Your task to perform on an android device: allow notifications from all sites in the chrome app Image 0: 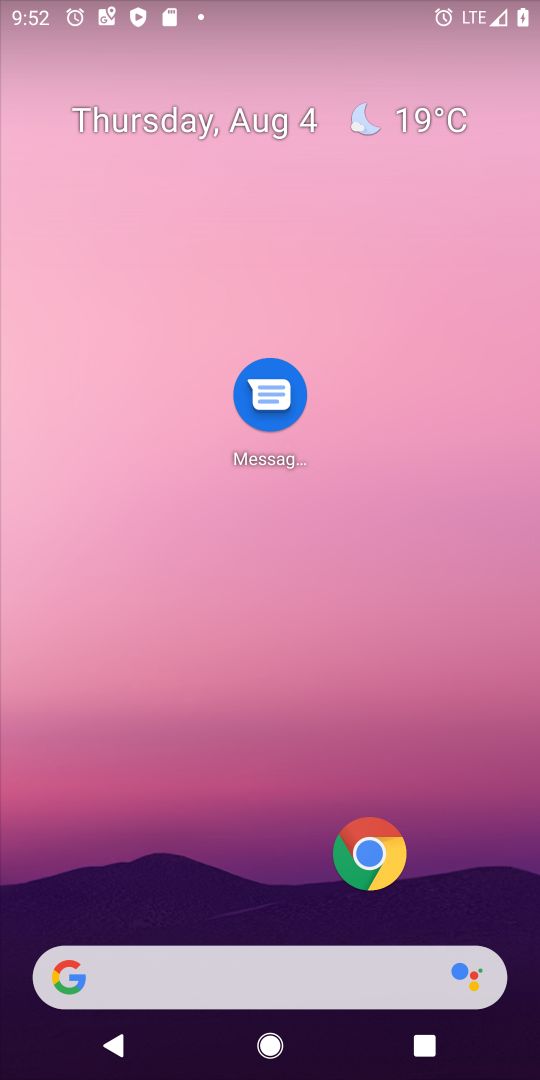
Step 0: click (371, 855)
Your task to perform on an android device: allow notifications from all sites in the chrome app Image 1: 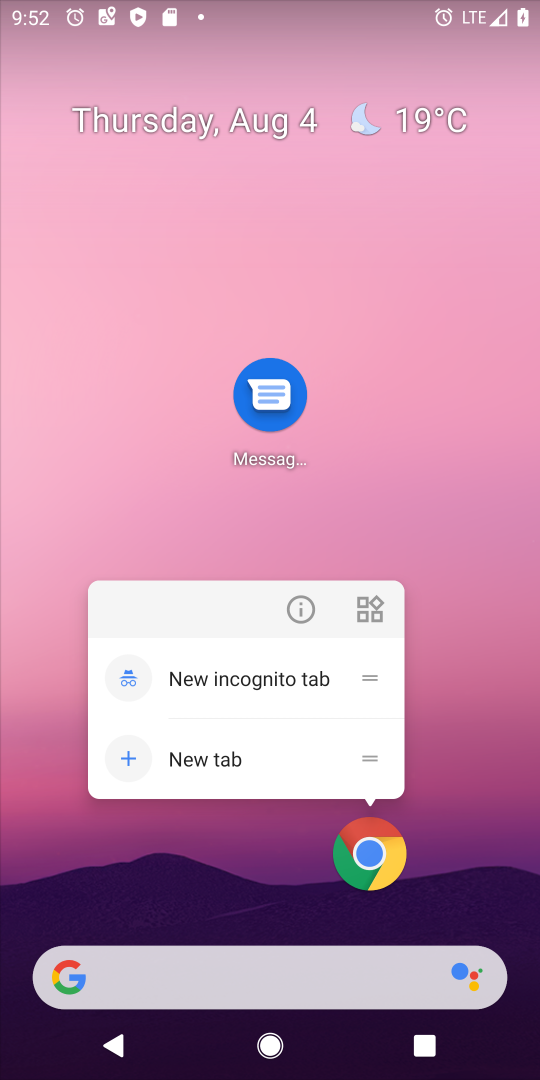
Step 1: click (371, 855)
Your task to perform on an android device: allow notifications from all sites in the chrome app Image 2: 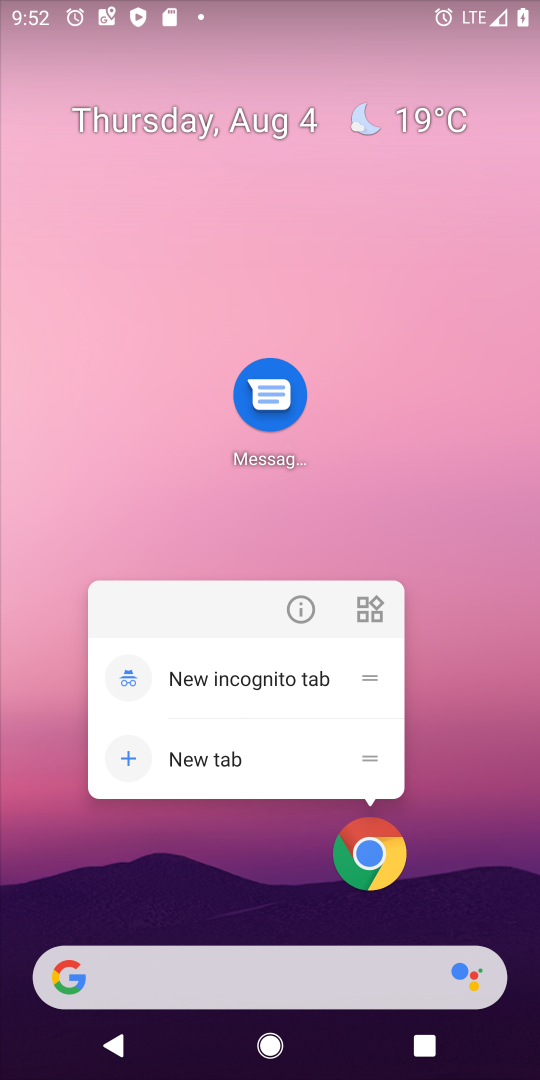
Step 2: click (371, 855)
Your task to perform on an android device: allow notifications from all sites in the chrome app Image 3: 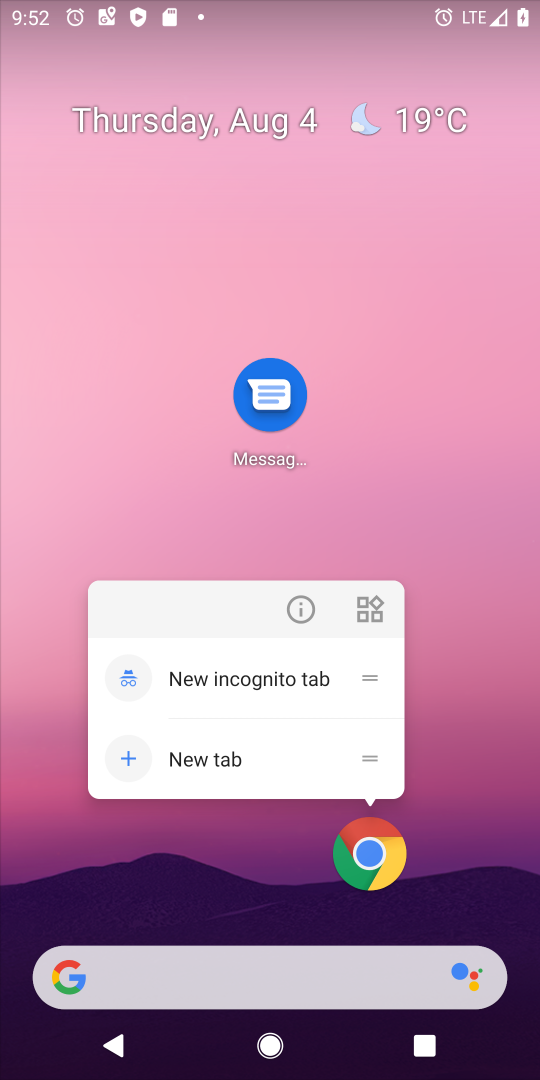
Step 3: click (375, 858)
Your task to perform on an android device: allow notifications from all sites in the chrome app Image 4: 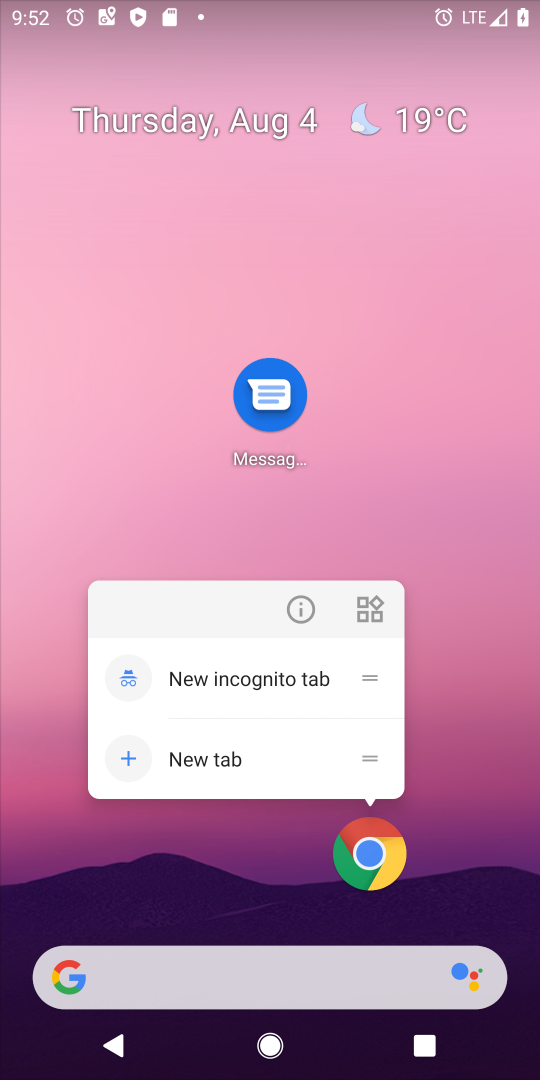
Step 4: click (371, 841)
Your task to perform on an android device: allow notifications from all sites in the chrome app Image 5: 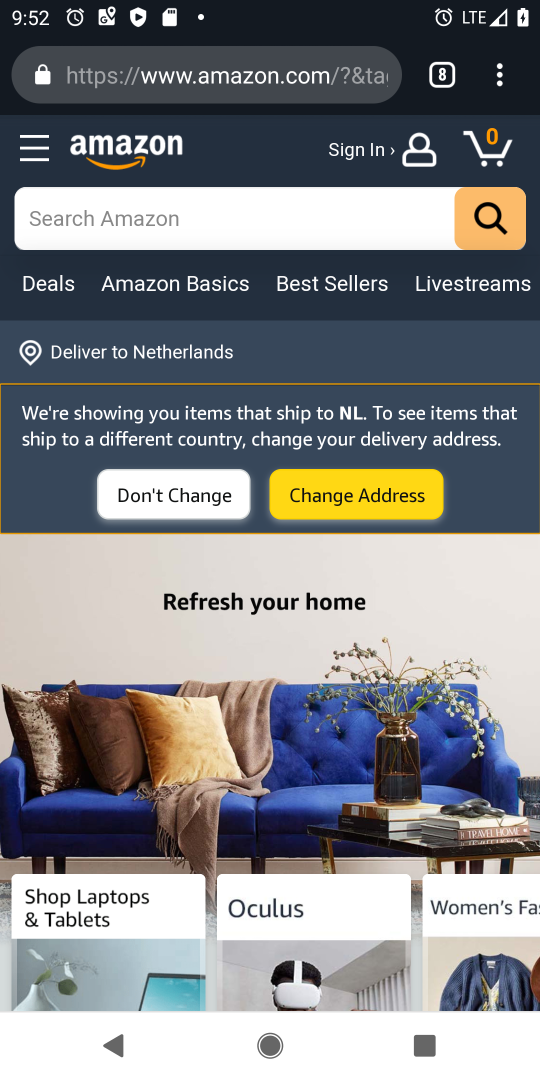
Step 5: click (506, 80)
Your task to perform on an android device: allow notifications from all sites in the chrome app Image 6: 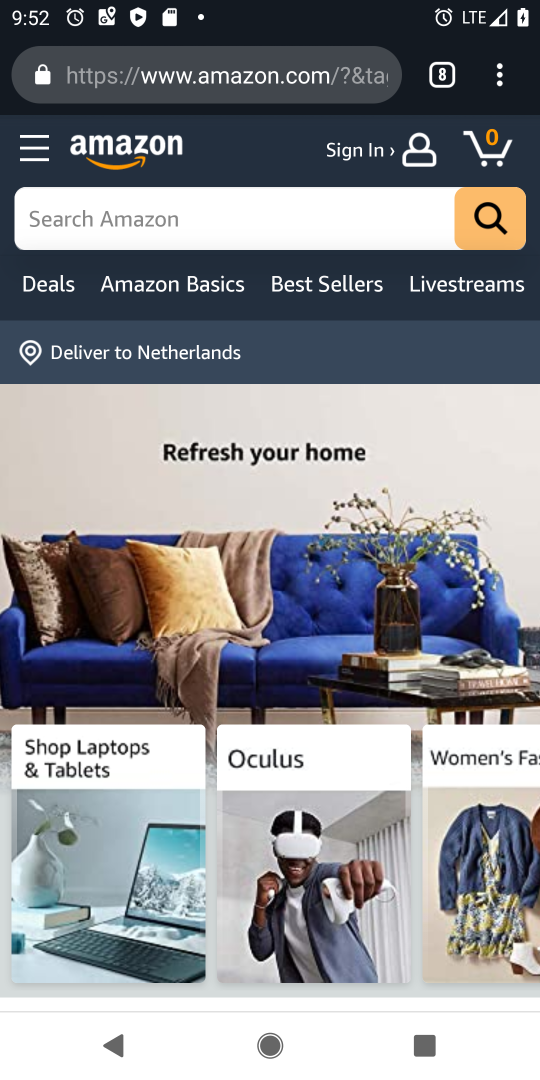
Step 6: click (506, 80)
Your task to perform on an android device: allow notifications from all sites in the chrome app Image 7: 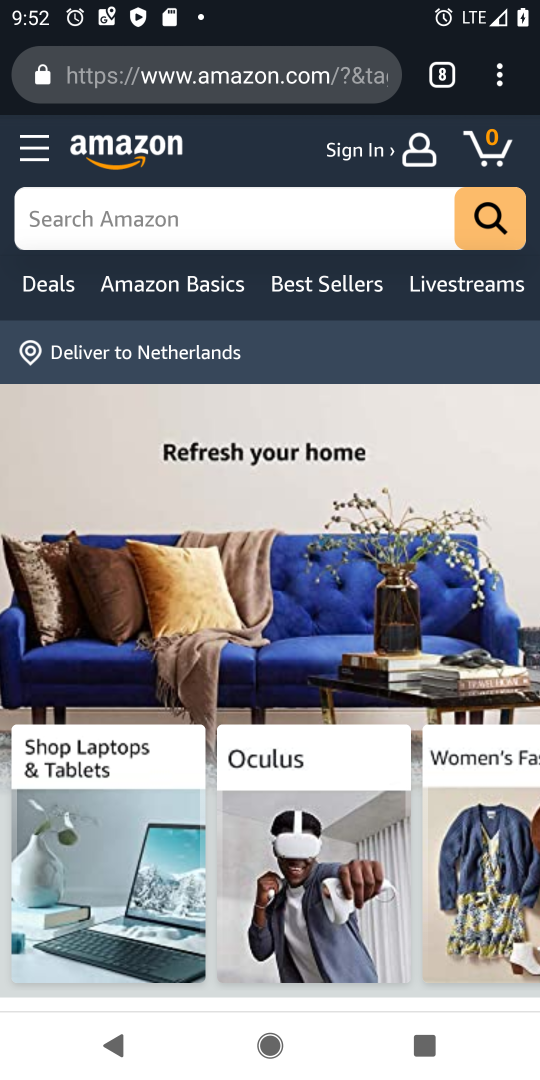
Step 7: click (496, 82)
Your task to perform on an android device: allow notifications from all sites in the chrome app Image 8: 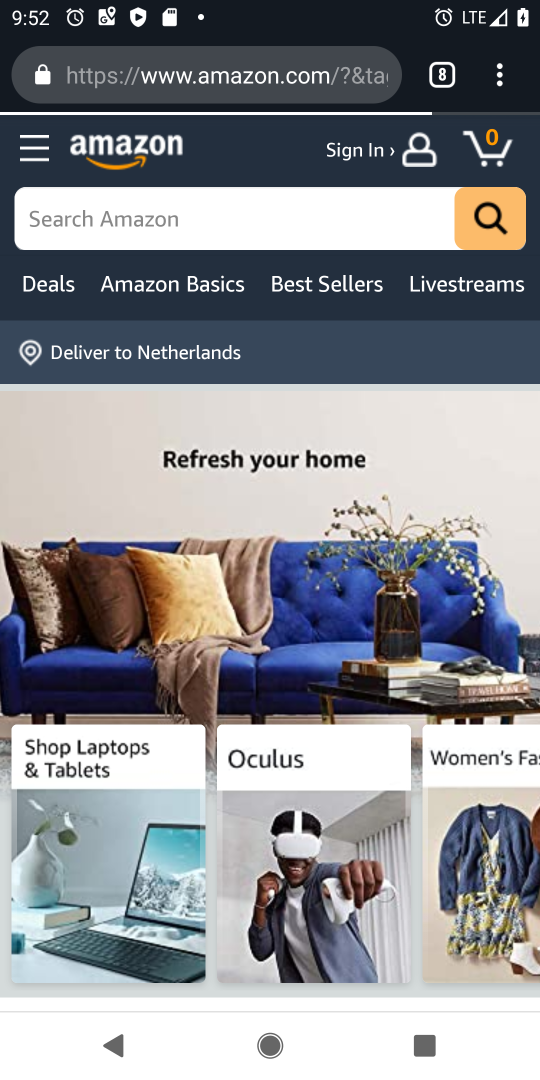
Step 8: click (497, 72)
Your task to perform on an android device: allow notifications from all sites in the chrome app Image 9: 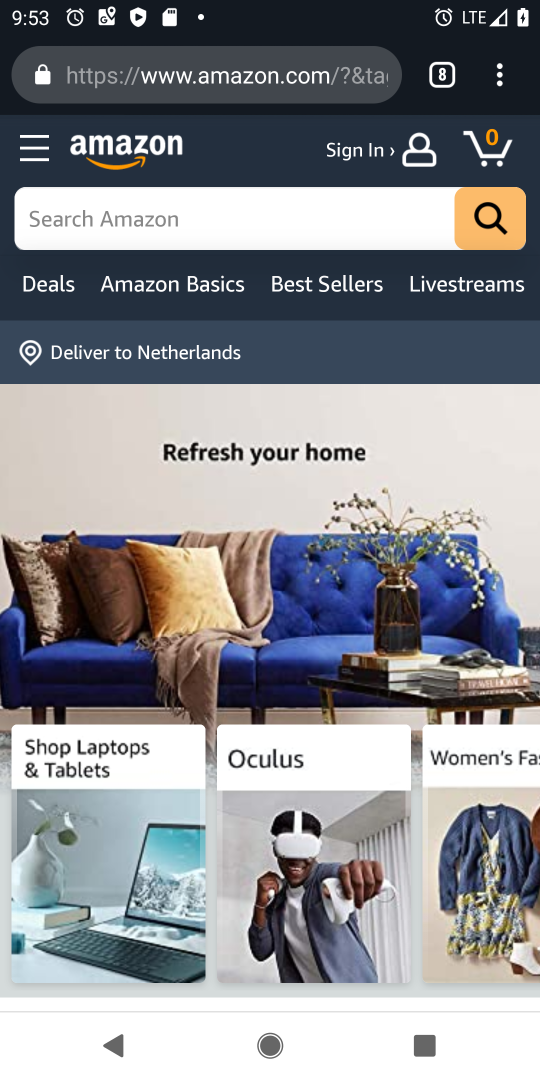
Step 9: click (505, 84)
Your task to perform on an android device: allow notifications from all sites in the chrome app Image 10: 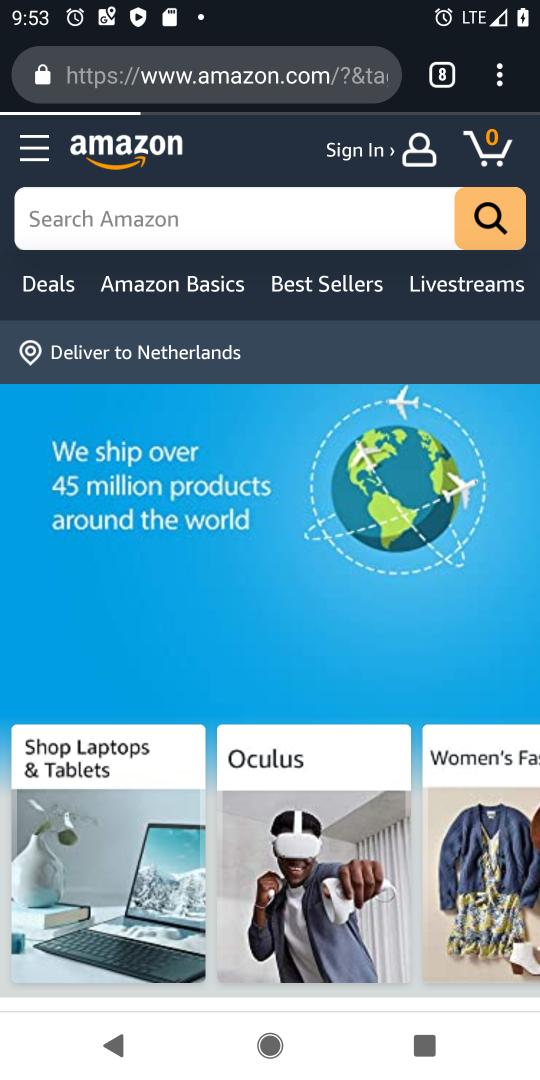
Step 10: click (499, 78)
Your task to perform on an android device: allow notifications from all sites in the chrome app Image 11: 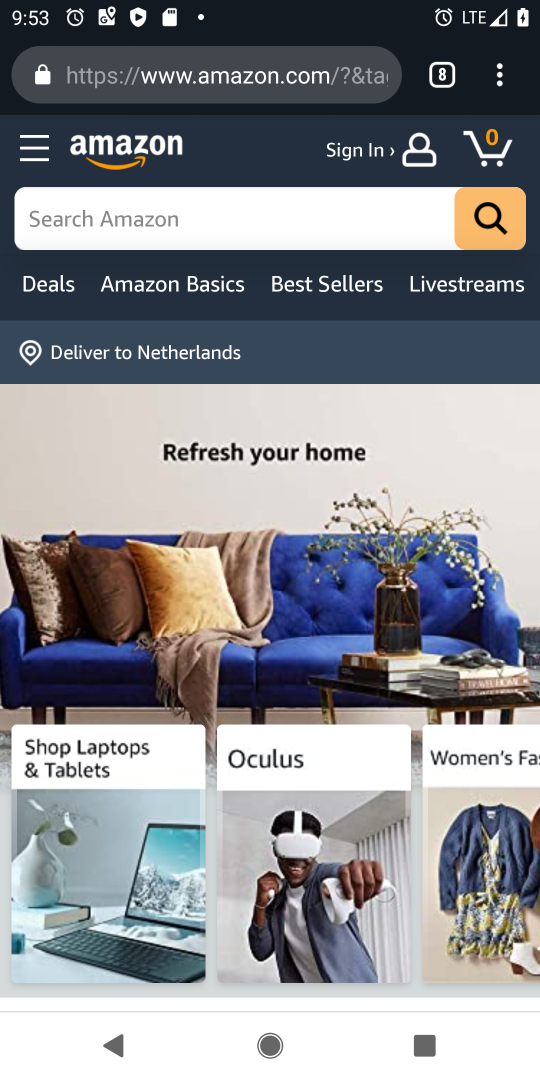
Step 11: click (501, 78)
Your task to perform on an android device: allow notifications from all sites in the chrome app Image 12: 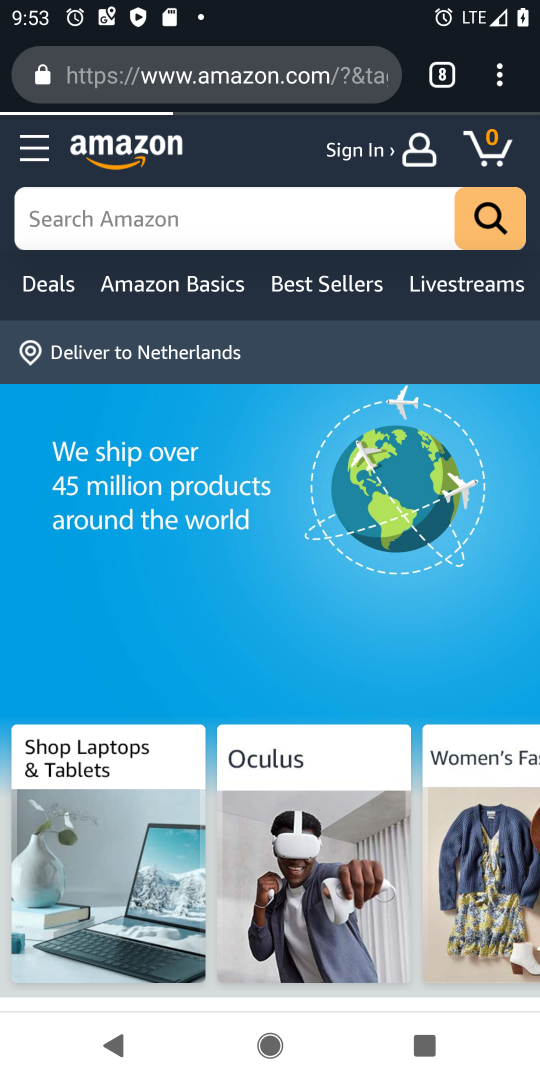
Step 12: click (501, 78)
Your task to perform on an android device: allow notifications from all sites in the chrome app Image 13: 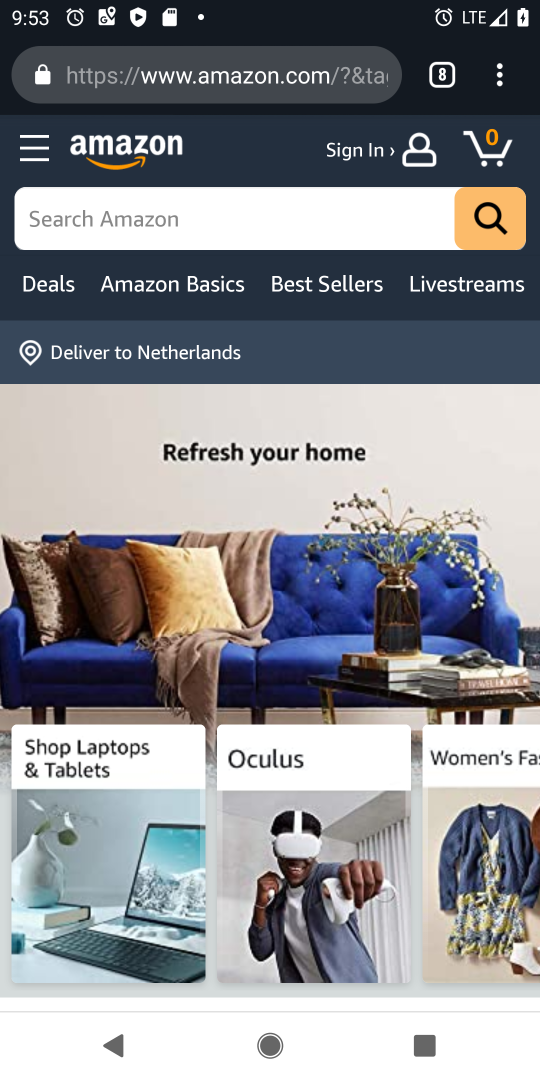
Step 13: click (501, 78)
Your task to perform on an android device: allow notifications from all sites in the chrome app Image 14: 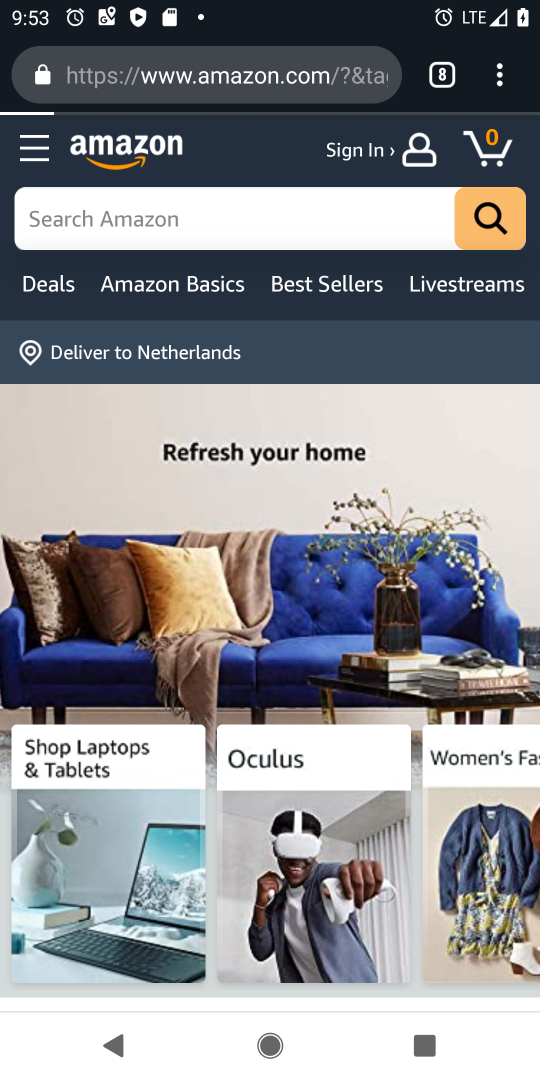
Step 14: click (501, 78)
Your task to perform on an android device: allow notifications from all sites in the chrome app Image 15: 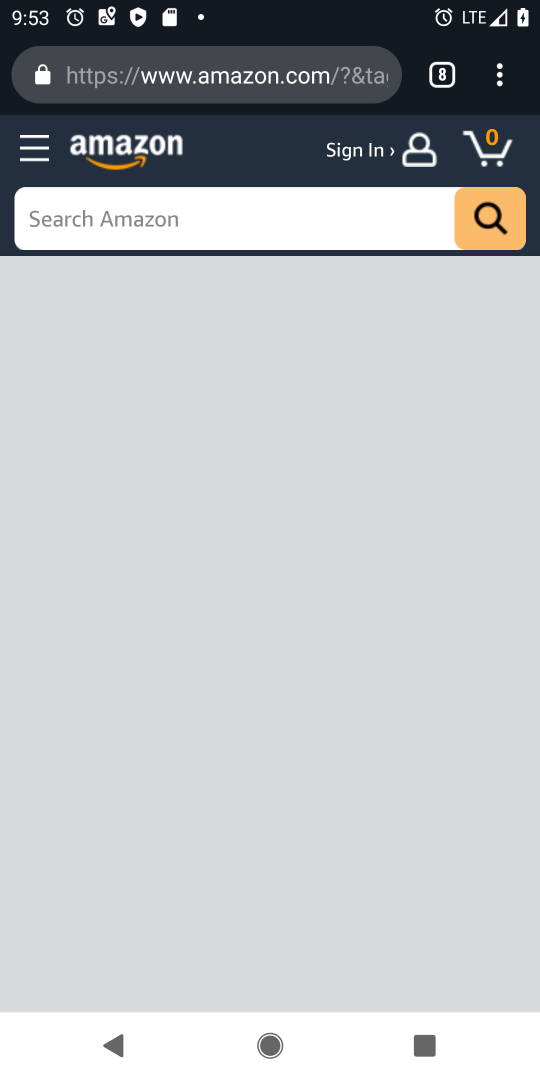
Step 15: click (497, 85)
Your task to perform on an android device: allow notifications from all sites in the chrome app Image 16: 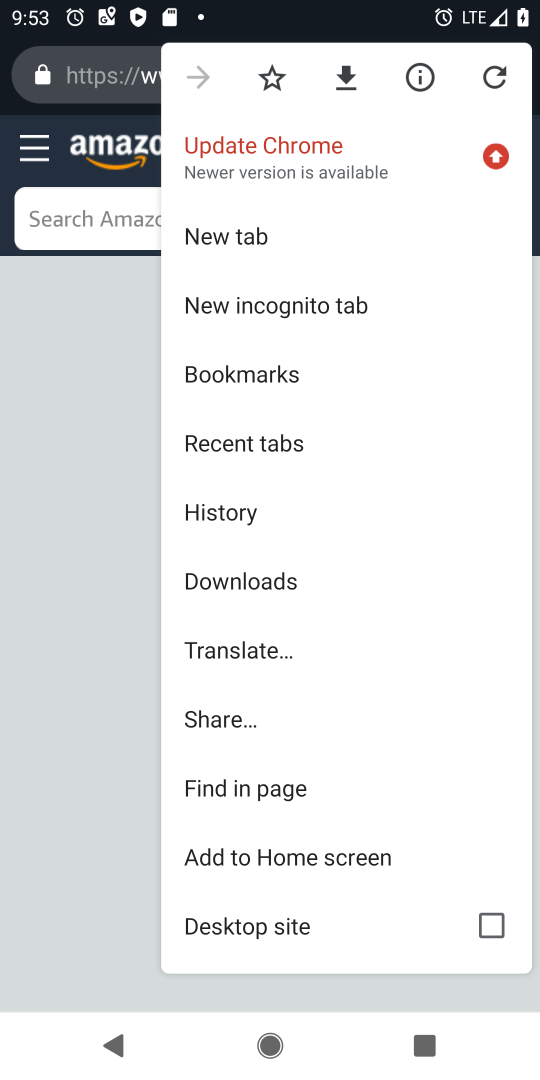
Step 16: drag from (253, 896) to (235, 314)
Your task to perform on an android device: allow notifications from all sites in the chrome app Image 17: 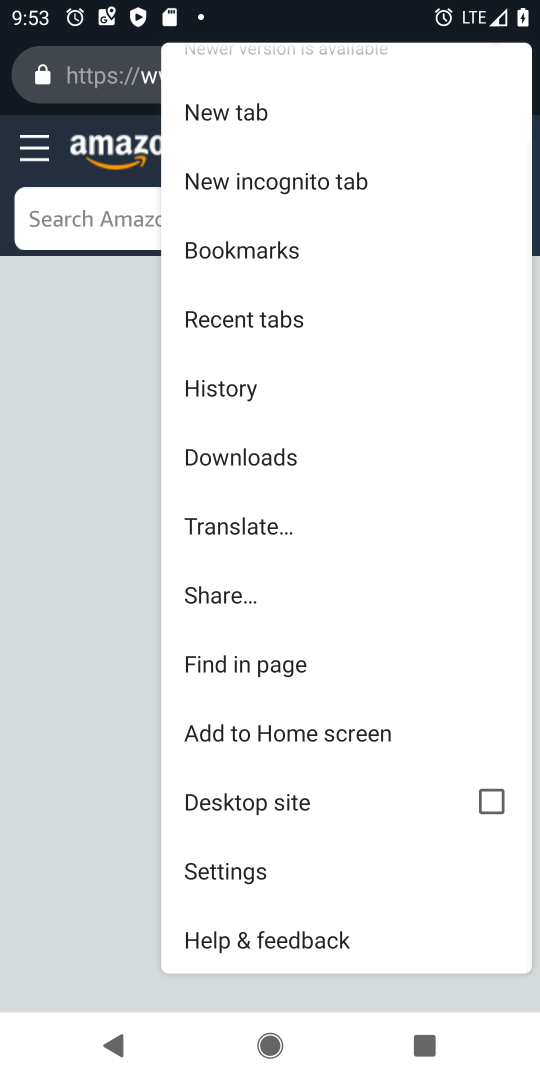
Step 17: click (230, 871)
Your task to perform on an android device: allow notifications from all sites in the chrome app Image 18: 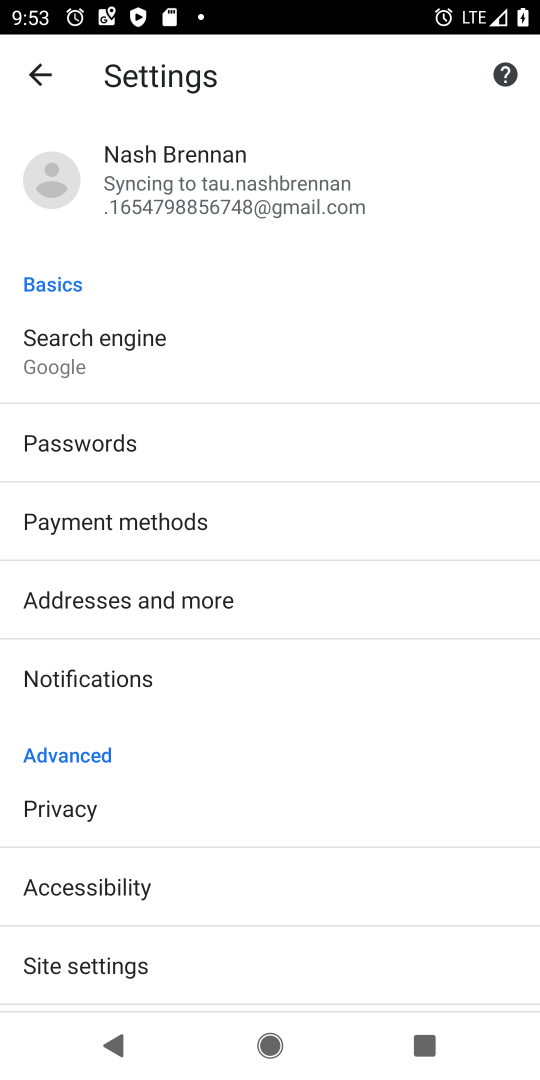
Step 18: drag from (149, 972) to (133, 532)
Your task to perform on an android device: allow notifications from all sites in the chrome app Image 19: 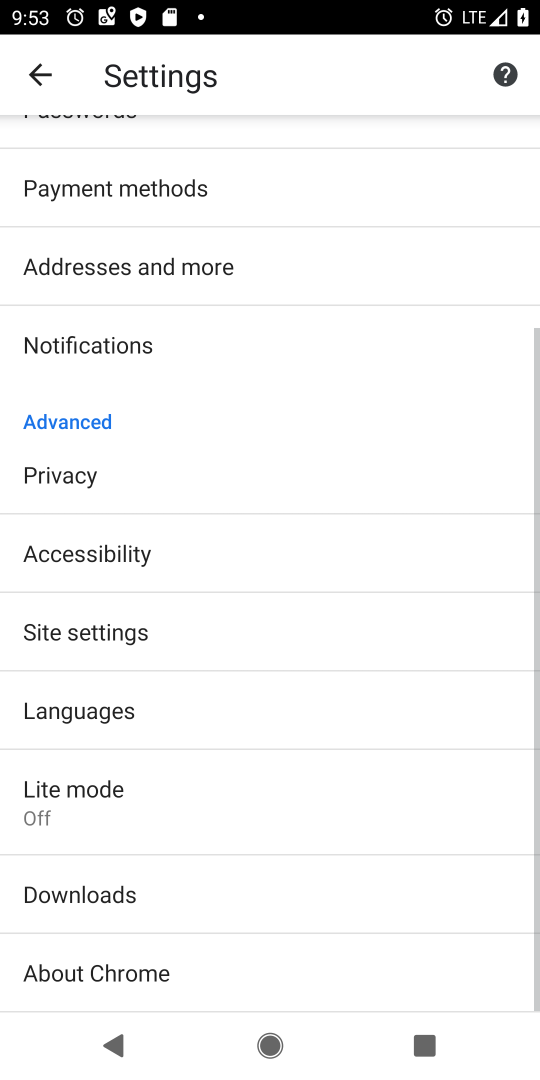
Step 19: click (77, 636)
Your task to perform on an android device: allow notifications from all sites in the chrome app Image 20: 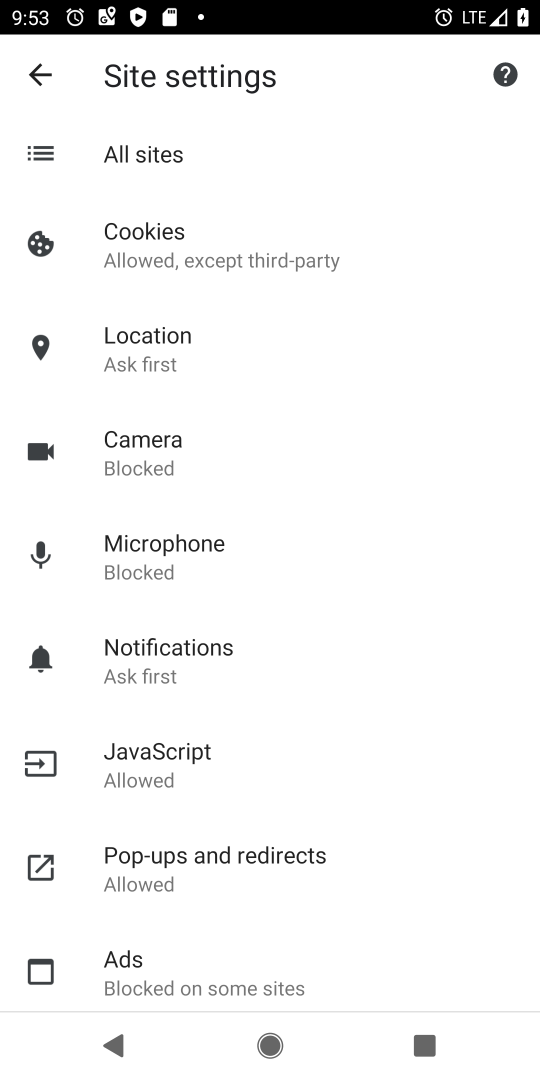
Step 20: click (166, 653)
Your task to perform on an android device: allow notifications from all sites in the chrome app Image 21: 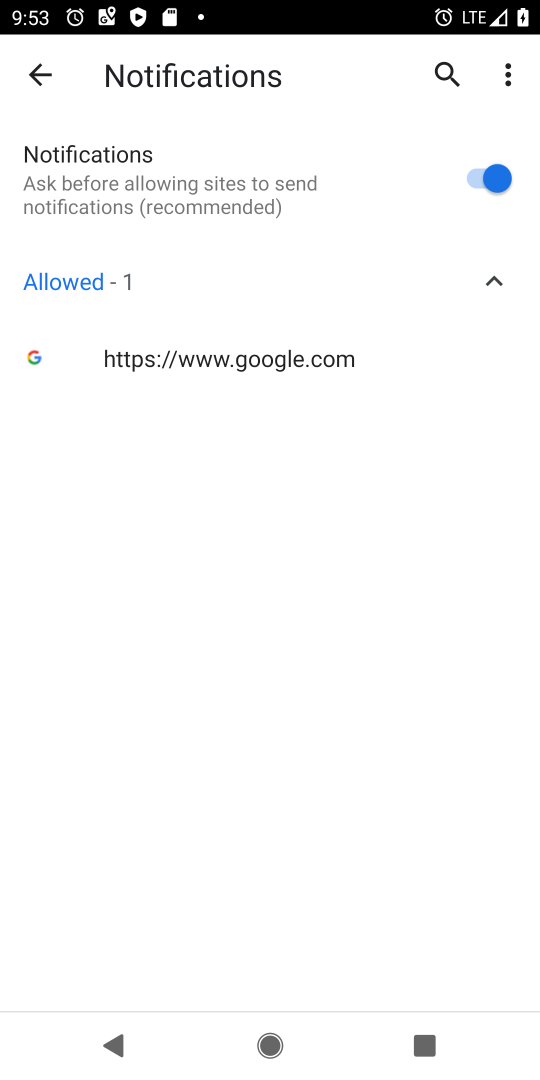
Step 21: task complete